Your task to perform on an android device: Search for Mexican restaurants on Maps Image 0: 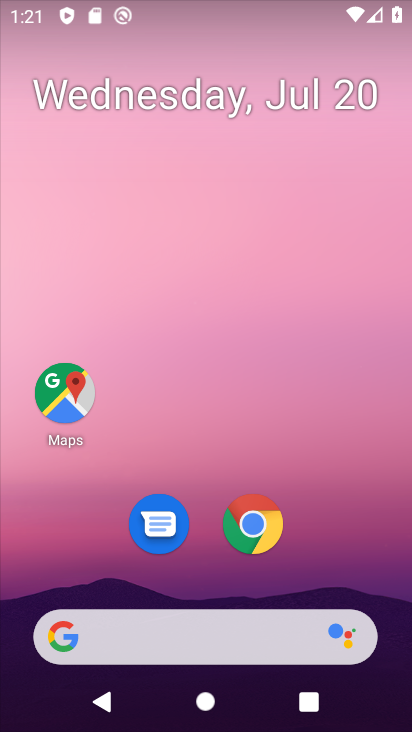
Step 0: click (68, 383)
Your task to perform on an android device: Search for Mexican restaurants on Maps Image 1: 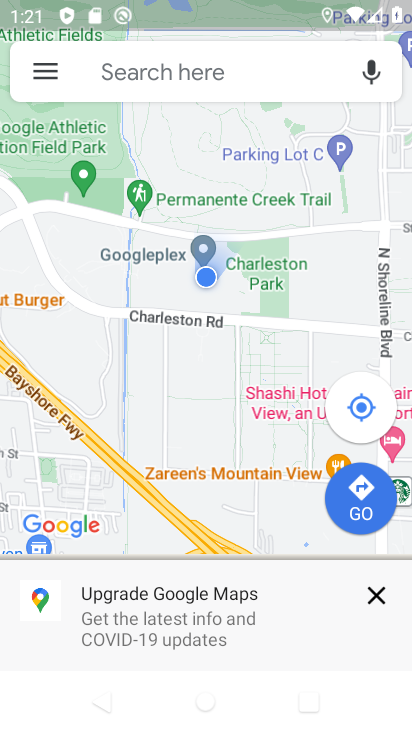
Step 1: click (248, 73)
Your task to perform on an android device: Search for Mexican restaurants on Maps Image 2: 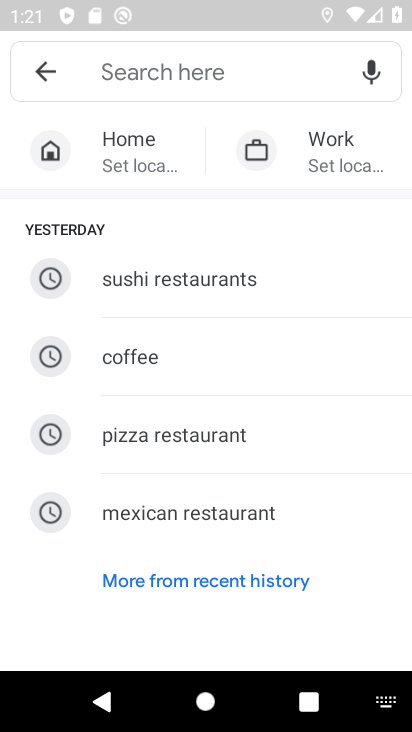
Step 2: click (206, 509)
Your task to perform on an android device: Search for Mexican restaurants on Maps Image 3: 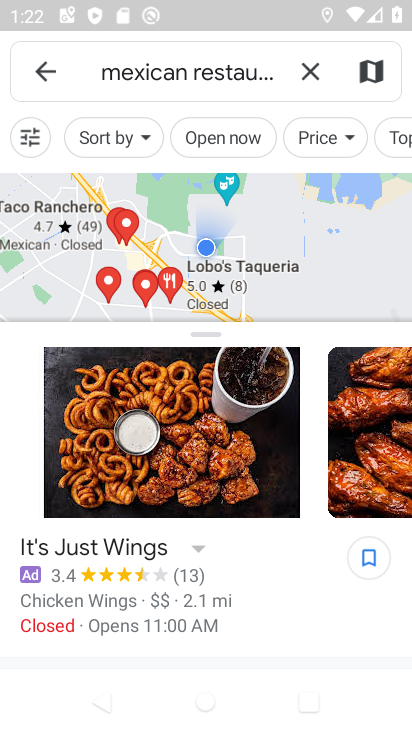
Step 3: task complete